Your task to perform on an android device: Open the calendar app, open the side menu, and click the "Day" option Image 0: 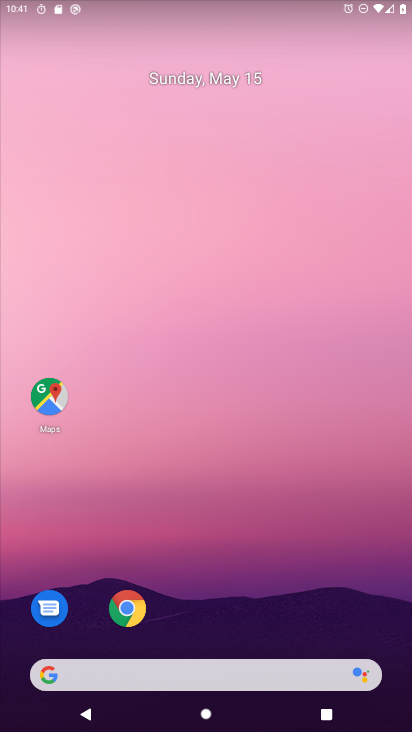
Step 0: drag from (312, 579) to (348, 149)
Your task to perform on an android device: Open the calendar app, open the side menu, and click the "Day" option Image 1: 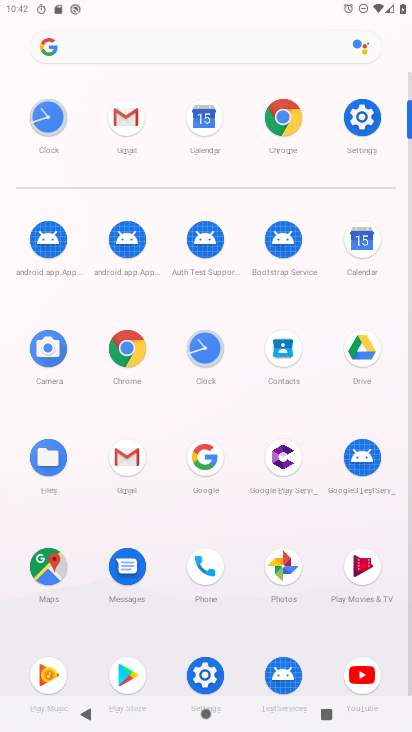
Step 1: click (370, 252)
Your task to perform on an android device: Open the calendar app, open the side menu, and click the "Day" option Image 2: 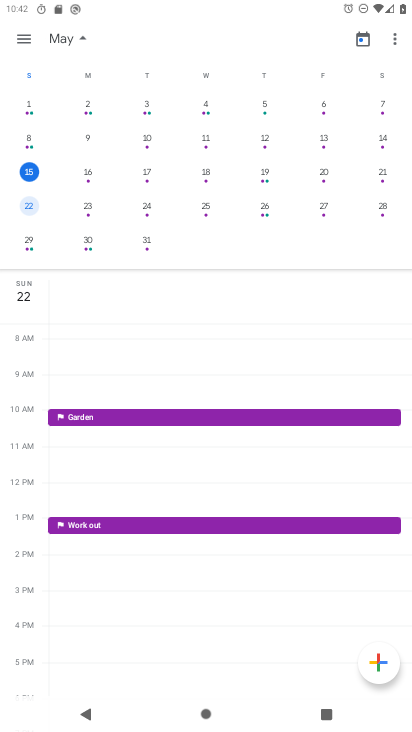
Step 2: click (27, 35)
Your task to perform on an android device: Open the calendar app, open the side menu, and click the "Day" option Image 3: 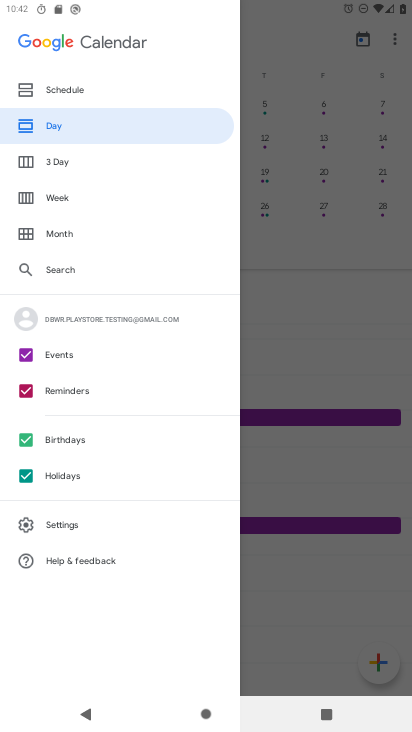
Step 3: click (124, 137)
Your task to perform on an android device: Open the calendar app, open the side menu, and click the "Day" option Image 4: 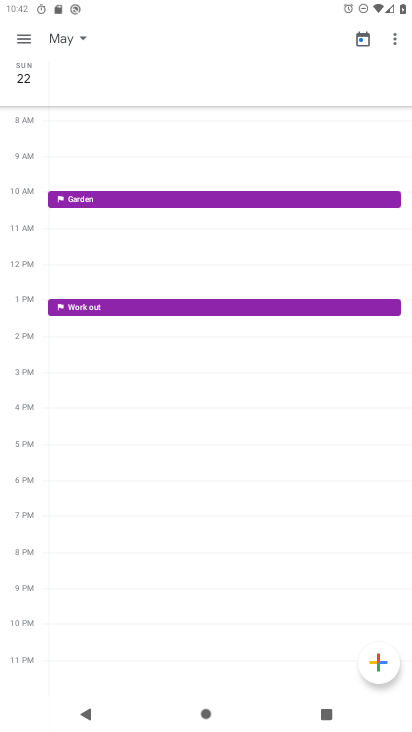
Step 4: task complete